Your task to perform on an android device: Toggle the flashlight Image 0: 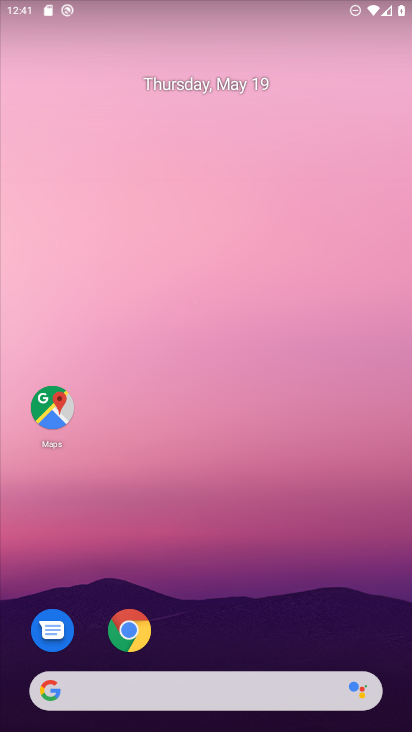
Step 0: click (382, 30)
Your task to perform on an android device: Toggle the flashlight Image 1: 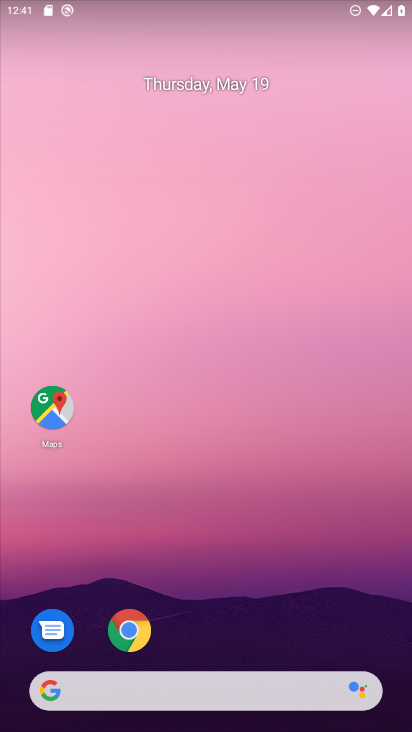
Step 1: drag from (194, 671) to (190, 1)
Your task to perform on an android device: Toggle the flashlight Image 2: 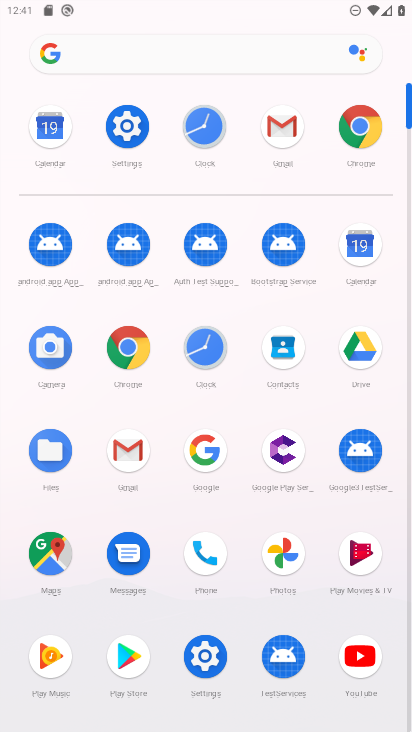
Step 2: click (132, 128)
Your task to perform on an android device: Toggle the flashlight Image 3: 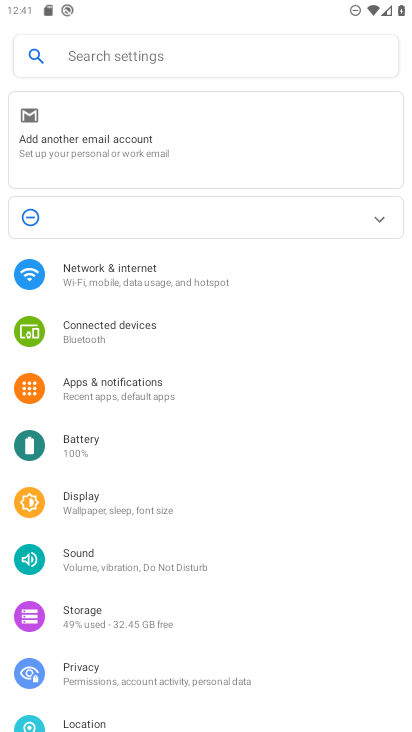
Step 3: click (184, 61)
Your task to perform on an android device: Toggle the flashlight Image 4: 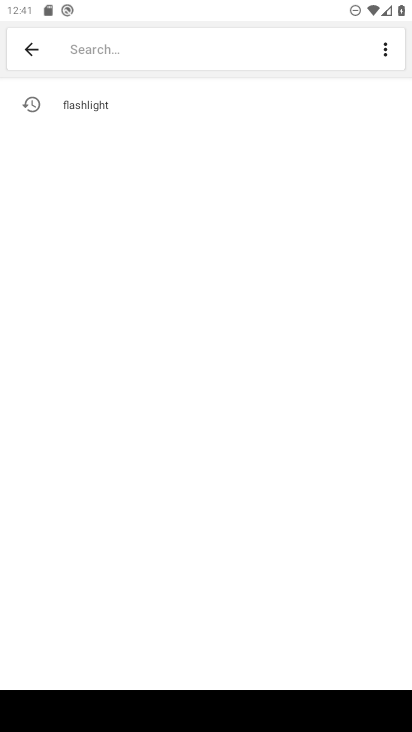
Step 4: click (70, 109)
Your task to perform on an android device: Toggle the flashlight Image 5: 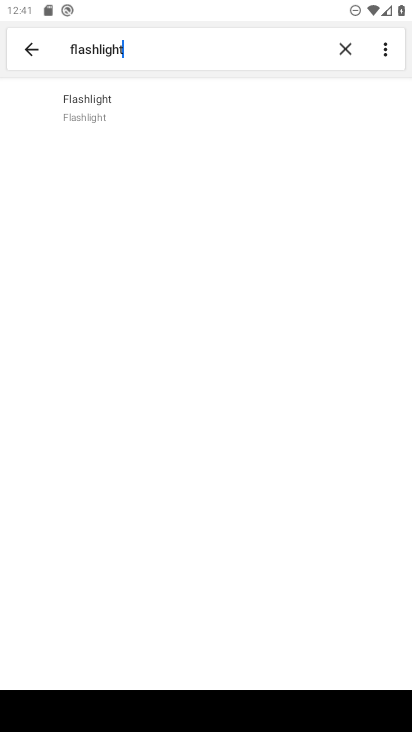
Step 5: task complete